Your task to perform on an android device: toggle pop-ups in chrome Image 0: 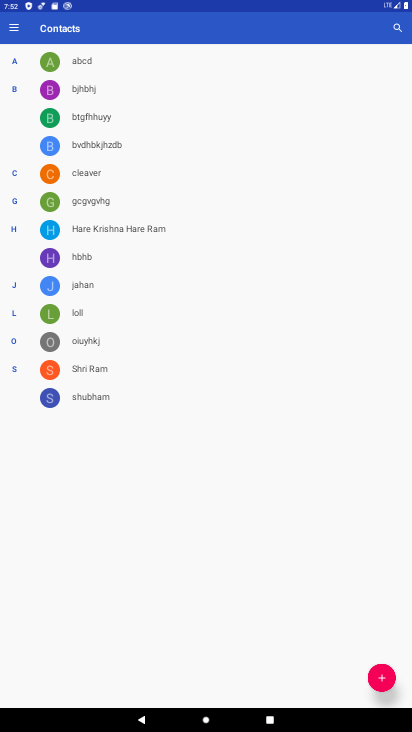
Step 0: press home button
Your task to perform on an android device: toggle pop-ups in chrome Image 1: 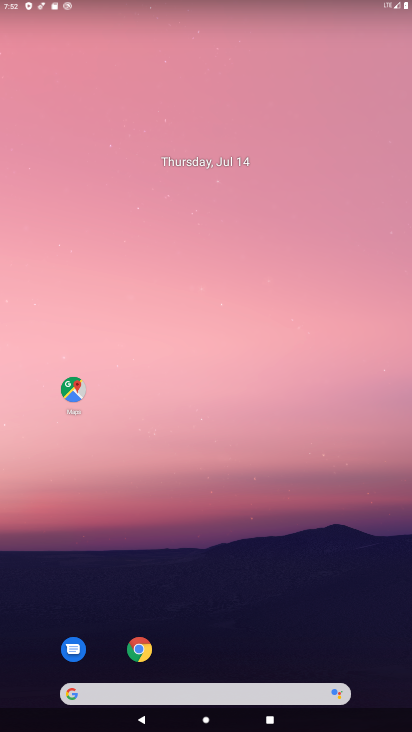
Step 1: drag from (242, 573) to (250, 80)
Your task to perform on an android device: toggle pop-ups in chrome Image 2: 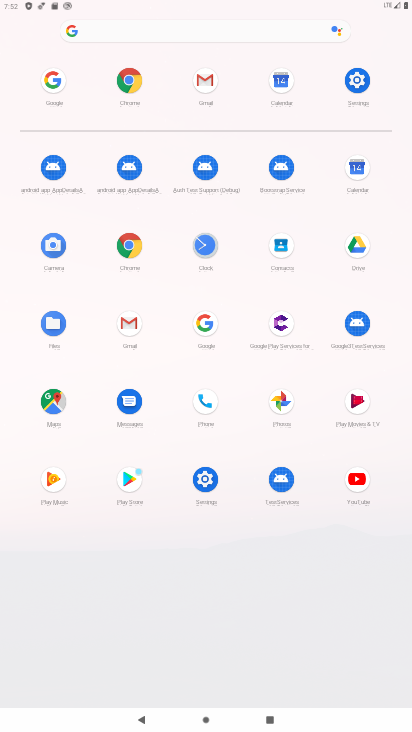
Step 2: click (131, 245)
Your task to perform on an android device: toggle pop-ups in chrome Image 3: 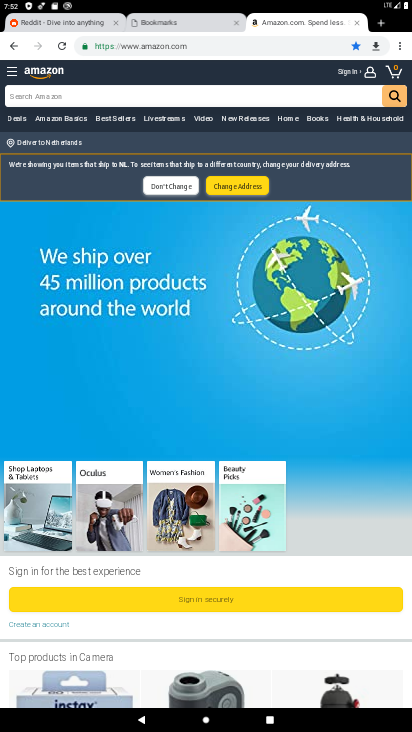
Step 3: drag from (399, 42) to (281, 312)
Your task to perform on an android device: toggle pop-ups in chrome Image 4: 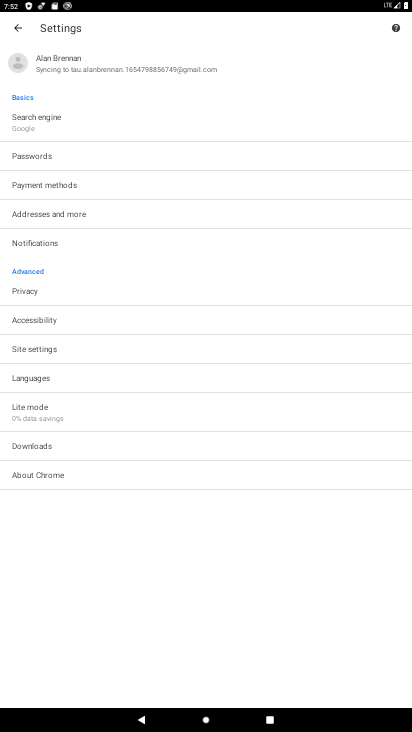
Step 4: click (14, 348)
Your task to perform on an android device: toggle pop-ups in chrome Image 5: 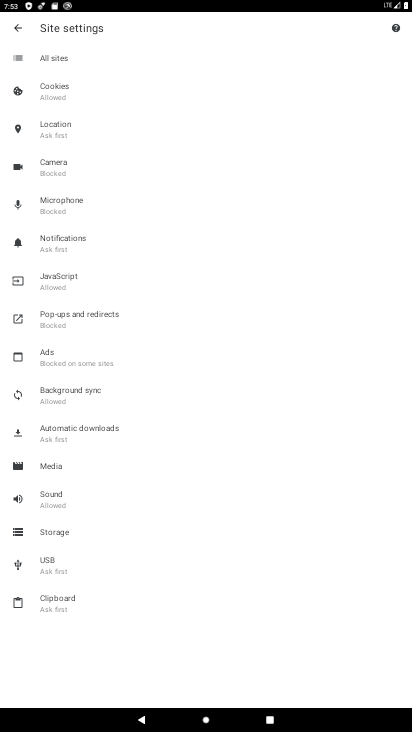
Step 5: click (36, 328)
Your task to perform on an android device: toggle pop-ups in chrome Image 6: 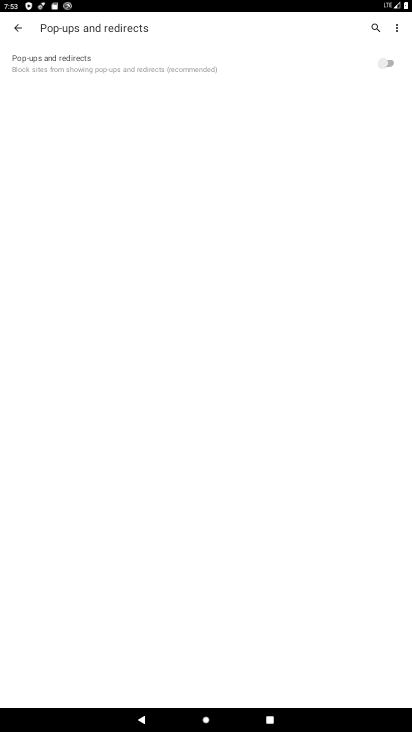
Step 6: click (385, 59)
Your task to perform on an android device: toggle pop-ups in chrome Image 7: 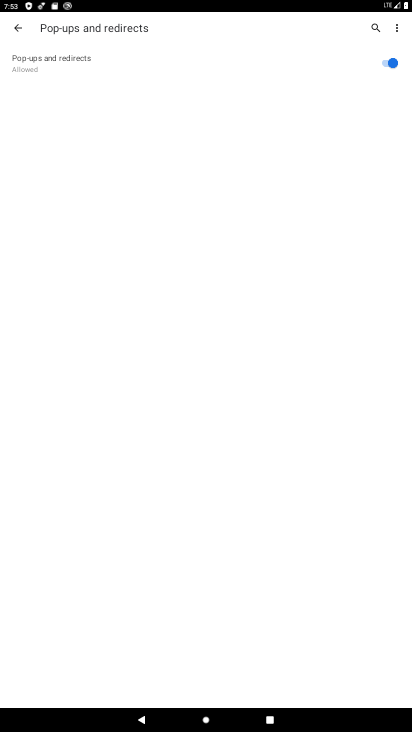
Step 7: task complete